Your task to perform on an android device: toggle javascript in the chrome app Image 0: 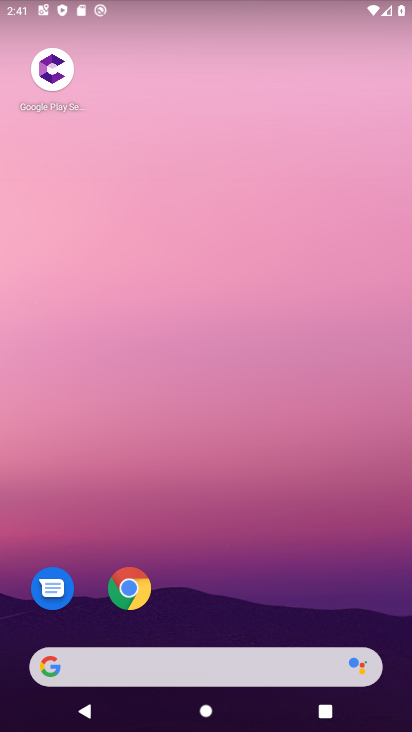
Step 0: click (126, 589)
Your task to perform on an android device: toggle javascript in the chrome app Image 1: 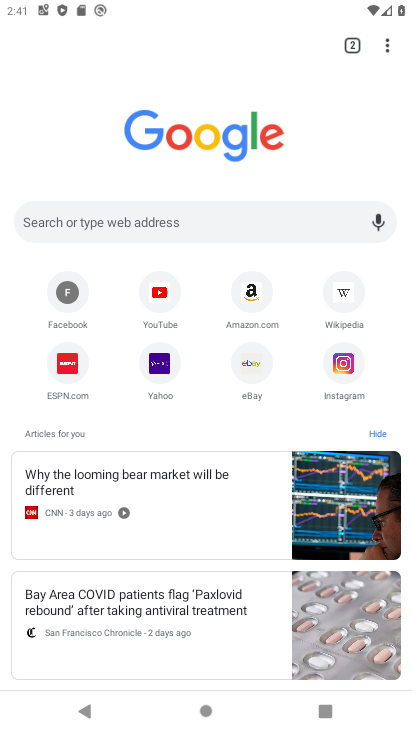
Step 1: click (390, 51)
Your task to perform on an android device: toggle javascript in the chrome app Image 2: 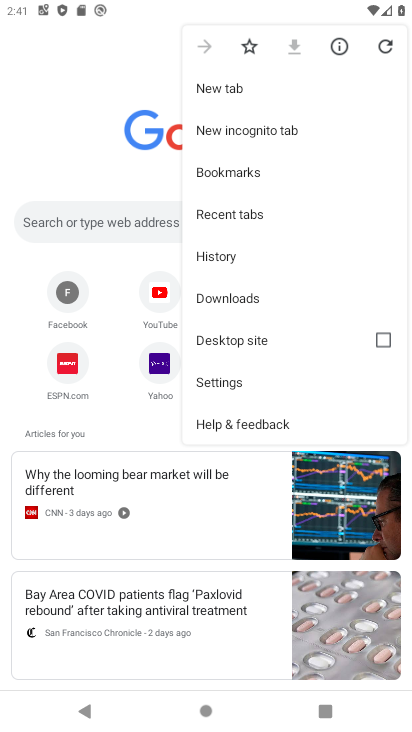
Step 2: click (231, 385)
Your task to perform on an android device: toggle javascript in the chrome app Image 3: 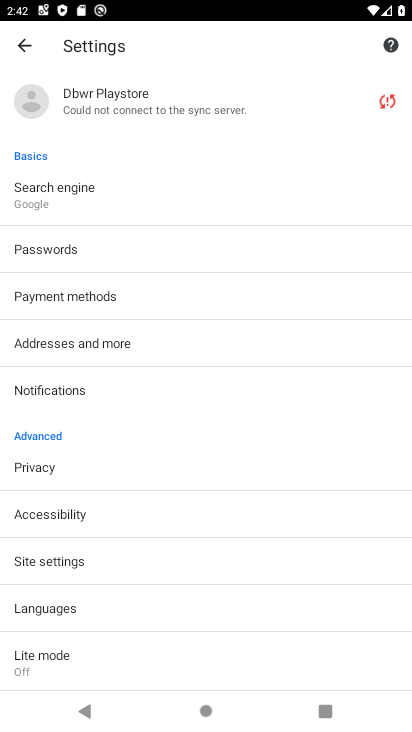
Step 3: click (64, 558)
Your task to perform on an android device: toggle javascript in the chrome app Image 4: 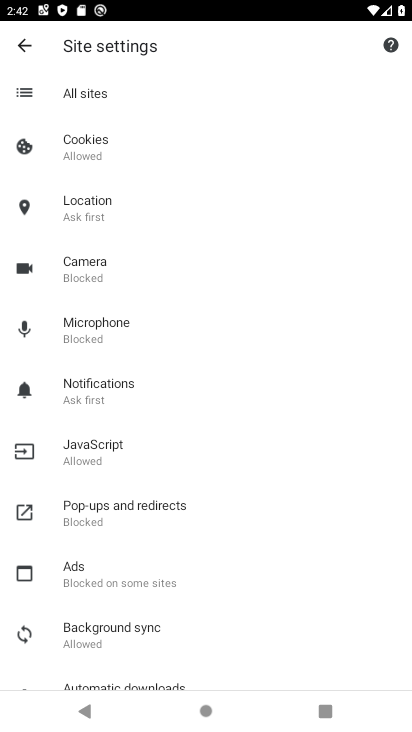
Step 4: click (81, 438)
Your task to perform on an android device: toggle javascript in the chrome app Image 5: 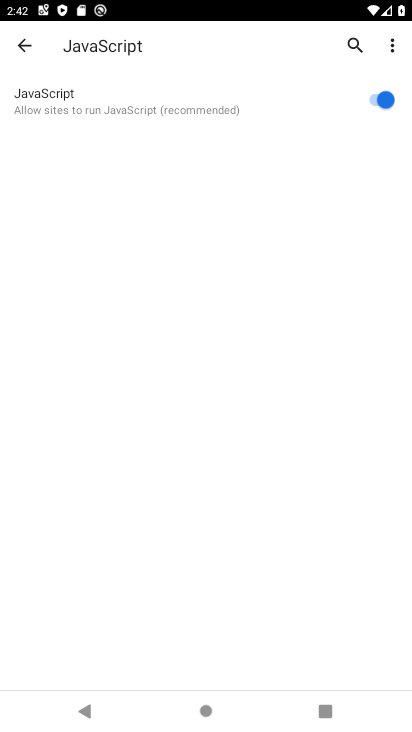
Step 5: click (371, 99)
Your task to perform on an android device: toggle javascript in the chrome app Image 6: 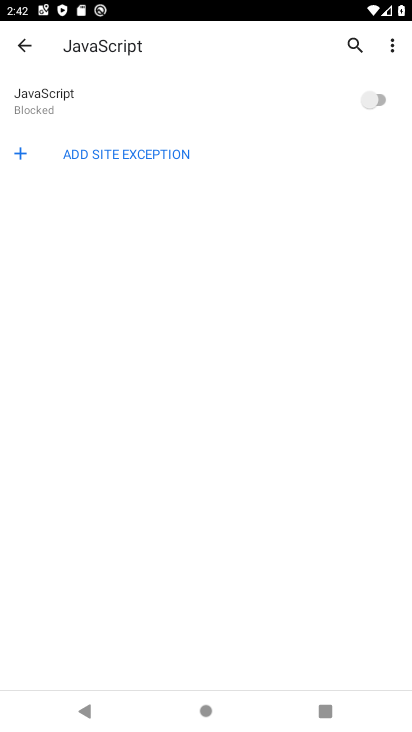
Step 6: task complete